Your task to perform on an android device: Open the calendar app, open the side menu, and click the "Day" option Image 0: 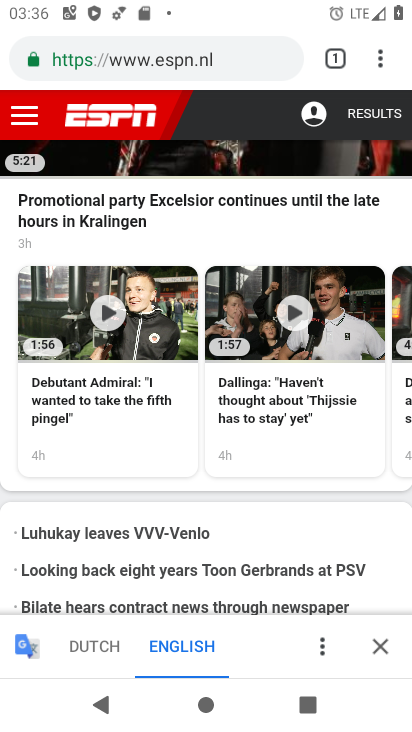
Step 0: press home button
Your task to perform on an android device: Open the calendar app, open the side menu, and click the "Day" option Image 1: 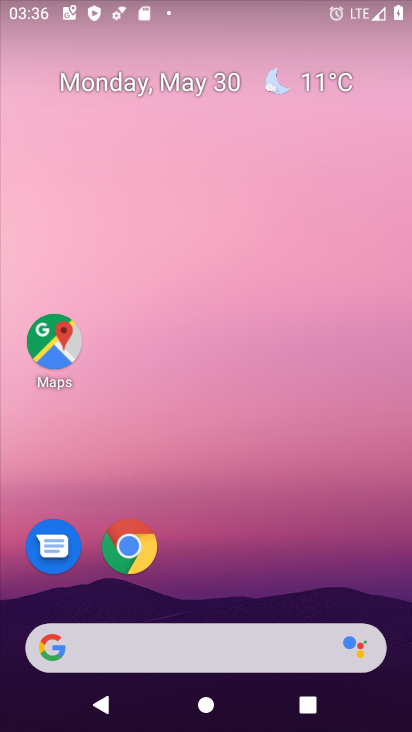
Step 1: drag from (238, 590) to (297, 125)
Your task to perform on an android device: Open the calendar app, open the side menu, and click the "Day" option Image 2: 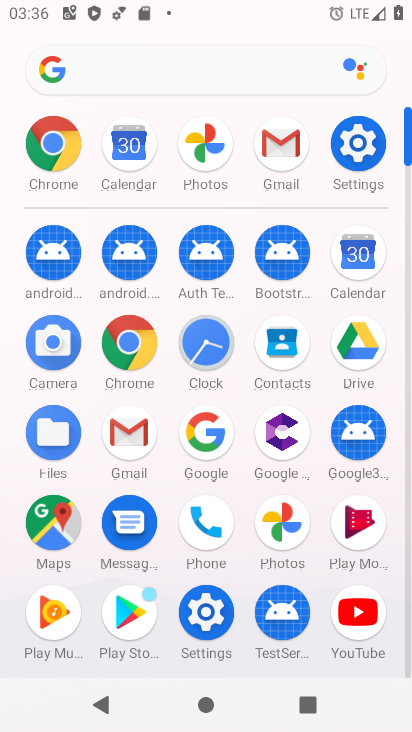
Step 2: click (361, 252)
Your task to perform on an android device: Open the calendar app, open the side menu, and click the "Day" option Image 3: 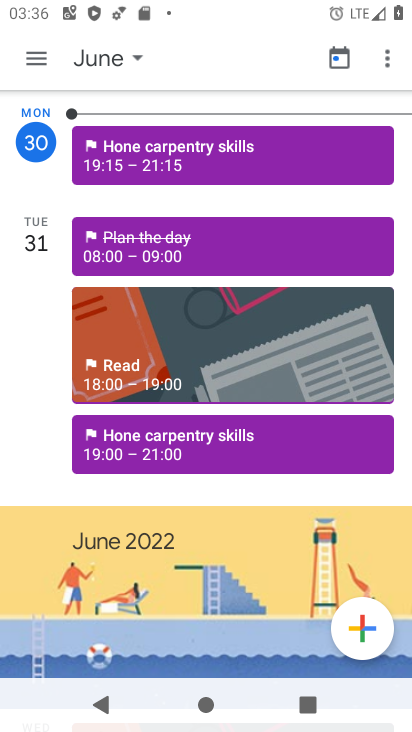
Step 3: click (35, 53)
Your task to perform on an android device: Open the calendar app, open the side menu, and click the "Day" option Image 4: 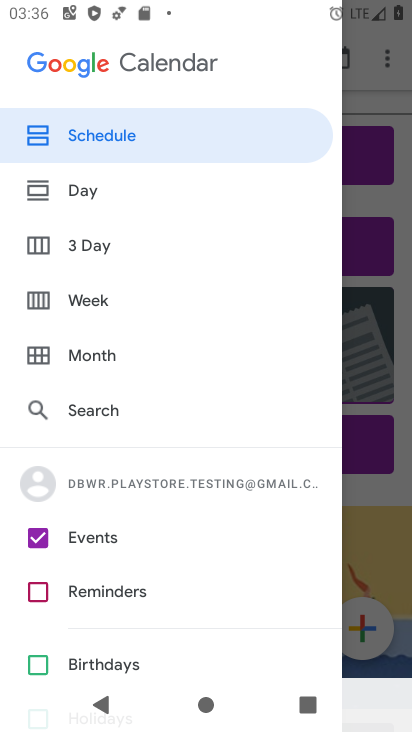
Step 4: click (86, 183)
Your task to perform on an android device: Open the calendar app, open the side menu, and click the "Day" option Image 5: 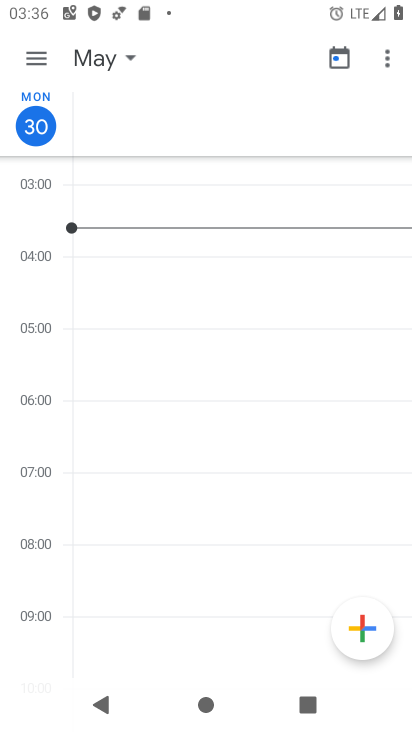
Step 5: task complete